Your task to perform on an android device: turn pop-ups off in chrome Image 0: 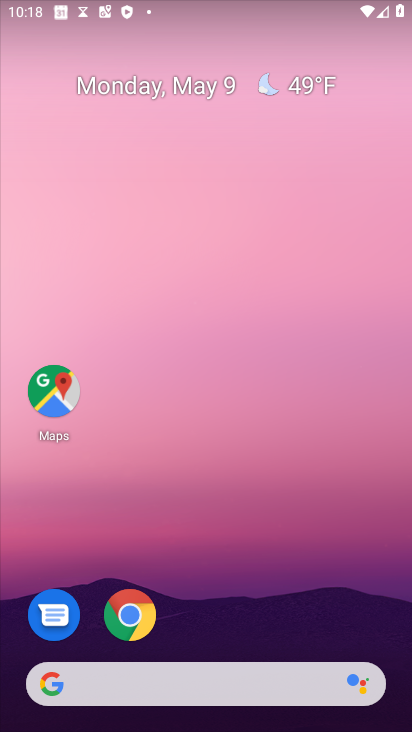
Step 0: click (150, 613)
Your task to perform on an android device: turn pop-ups off in chrome Image 1: 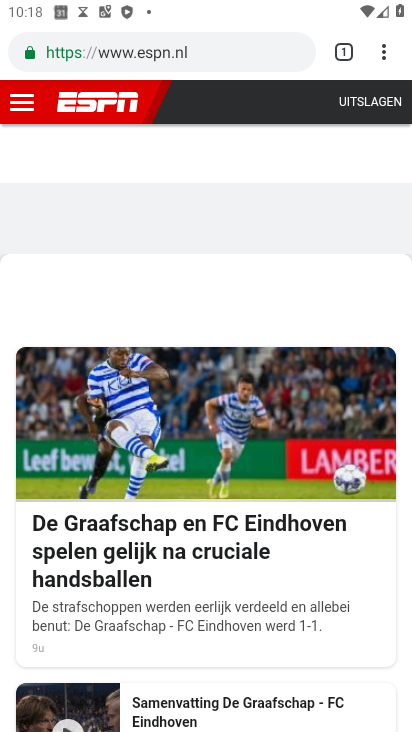
Step 1: drag from (389, 57) to (207, 646)
Your task to perform on an android device: turn pop-ups off in chrome Image 2: 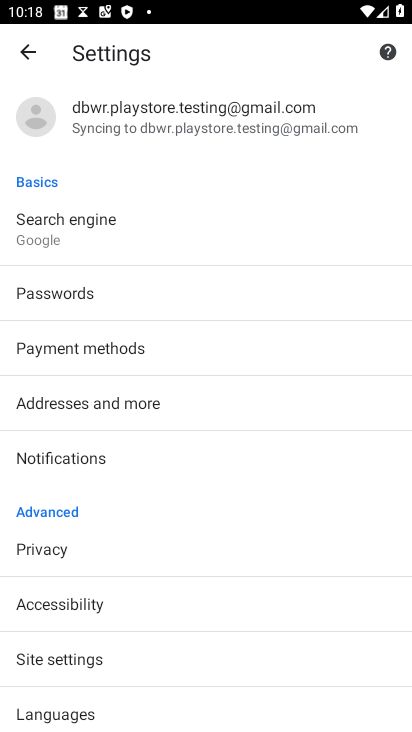
Step 2: drag from (129, 678) to (163, 345)
Your task to perform on an android device: turn pop-ups off in chrome Image 3: 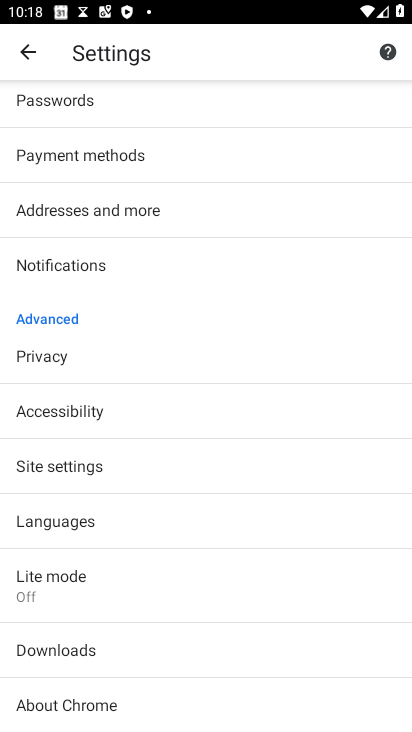
Step 3: drag from (159, 642) to (173, 289)
Your task to perform on an android device: turn pop-ups off in chrome Image 4: 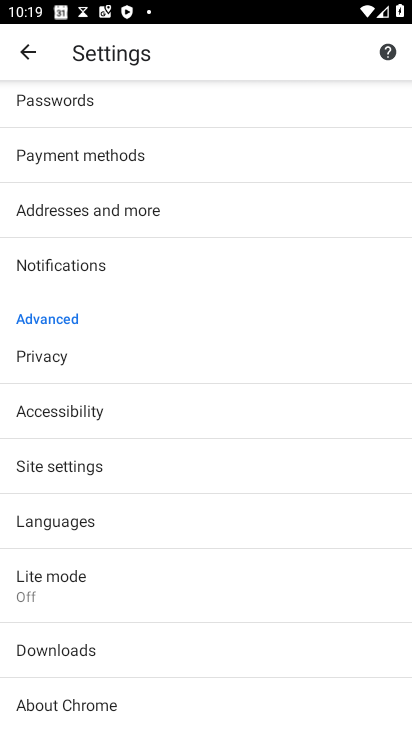
Step 4: click (96, 473)
Your task to perform on an android device: turn pop-ups off in chrome Image 5: 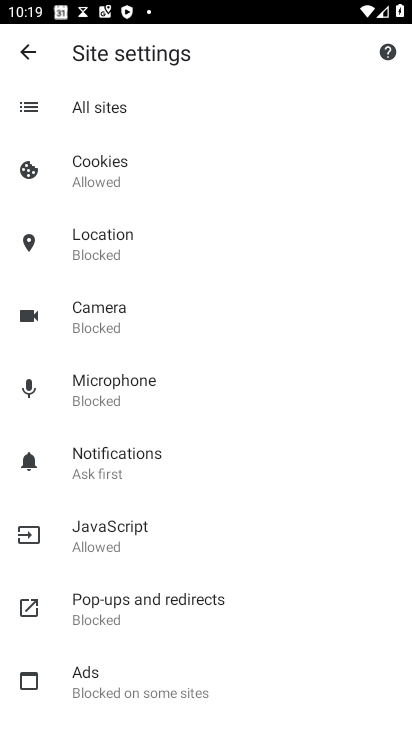
Step 5: click (193, 607)
Your task to perform on an android device: turn pop-ups off in chrome Image 6: 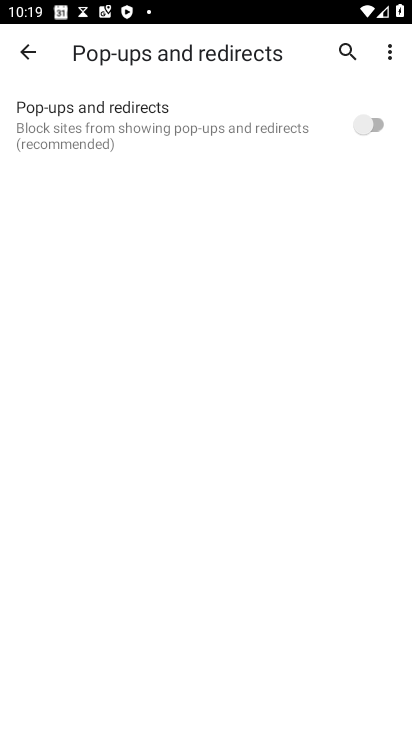
Step 6: click (369, 123)
Your task to perform on an android device: turn pop-ups off in chrome Image 7: 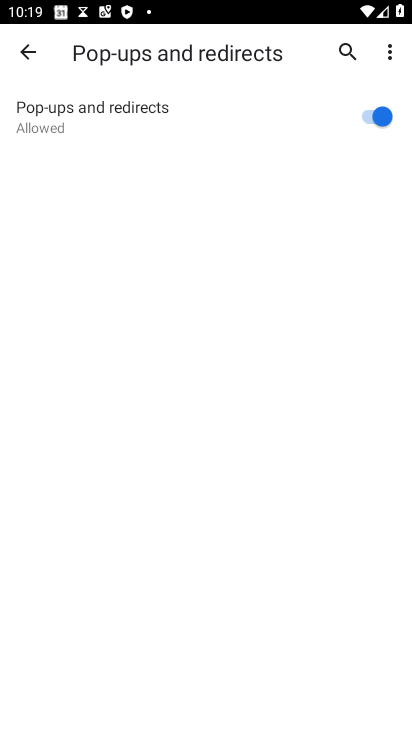
Step 7: task complete